Your task to perform on an android device: Toggle the flashlight Image 0: 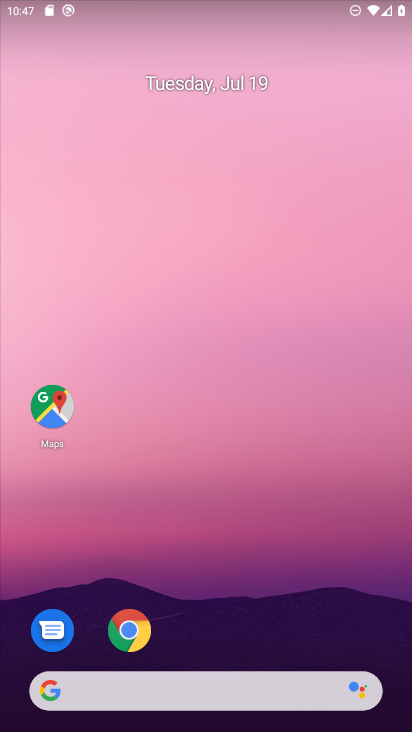
Step 0: drag from (189, 642) to (122, 158)
Your task to perform on an android device: Toggle the flashlight Image 1: 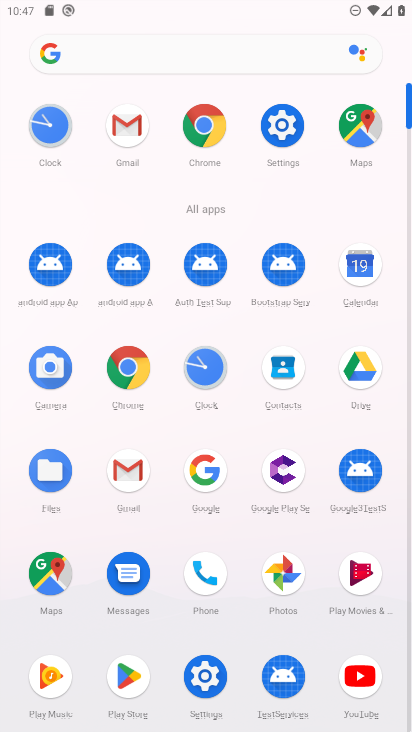
Step 1: click (266, 144)
Your task to perform on an android device: Toggle the flashlight Image 2: 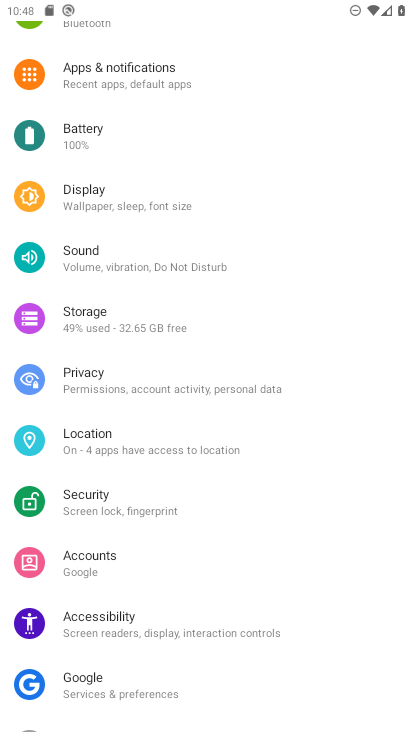
Step 2: task complete